Your task to perform on an android device: toggle notifications settings in the gmail app Image 0: 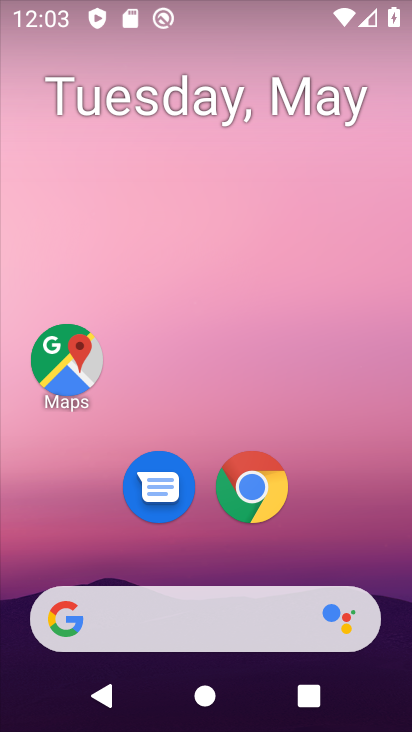
Step 0: drag from (336, 407) to (234, 46)
Your task to perform on an android device: toggle notifications settings in the gmail app Image 1: 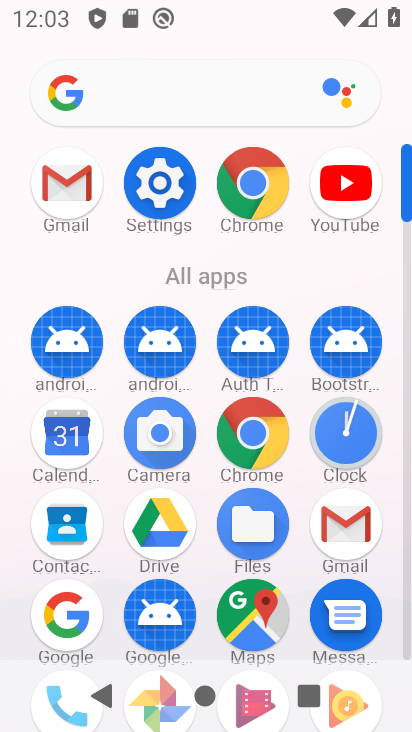
Step 1: click (356, 536)
Your task to perform on an android device: toggle notifications settings in the gmail app Image 2: 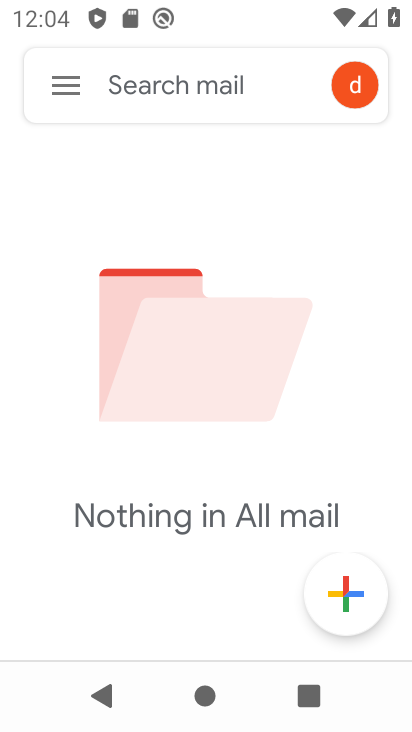
Step 2: click (67, 83)
Your task to perform on an android device: toggle notifications settings in the gmail app Image 3: 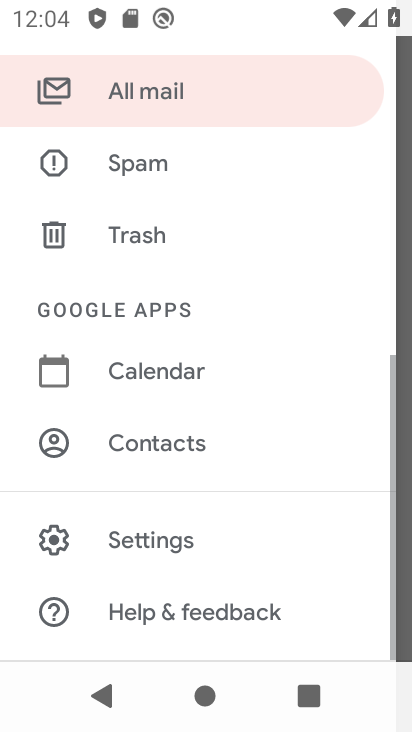
Step 3: click (171, 552)
Your task to perform on an android device: toggle notifications settings in the gmail app Image 4: 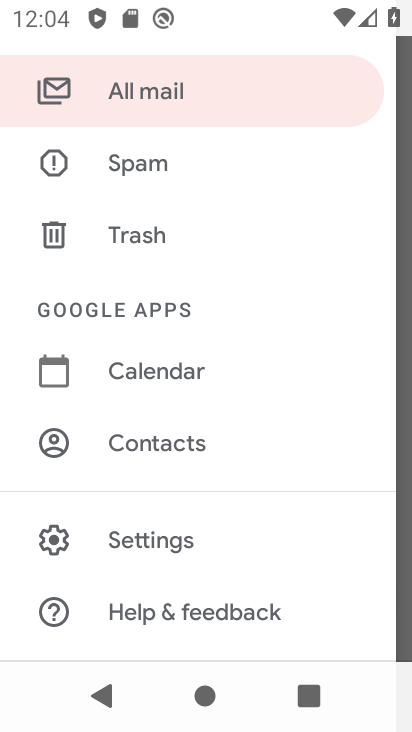
Step 4: click (188, 544)
Your task to perform on an android device: toggle notifications settings in the gmail app Image 5: 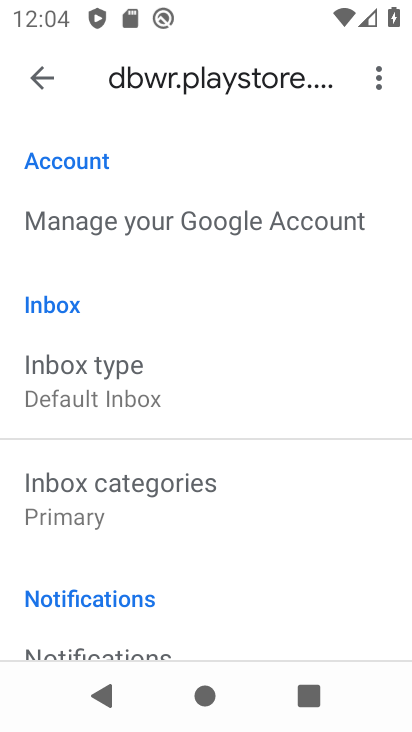
Step 5: click (170, 636)
Your task to perform on an android device: toggle notifications settings in the gmail app Image 6: 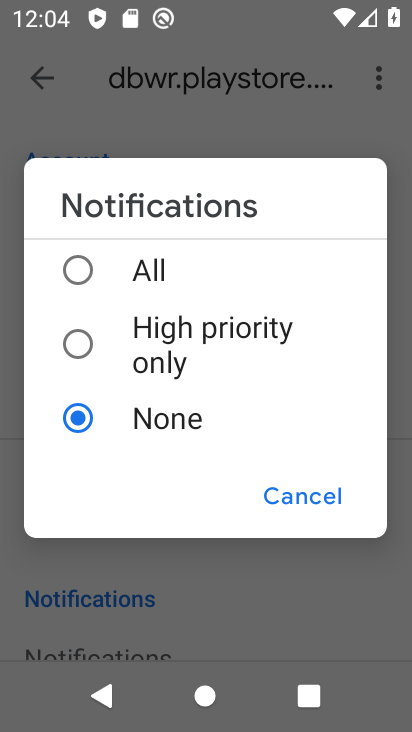
Step 6: click (157, 264)
Your task to perform on an android device: toggle notifications settings in the gmail app Image 7: 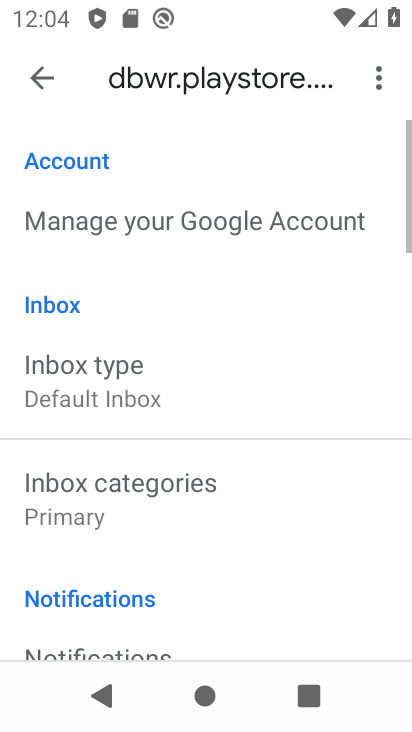
Step 7: task complete